Your task to perform on an android device: Open calendar and show me the third week of next month Image 0: 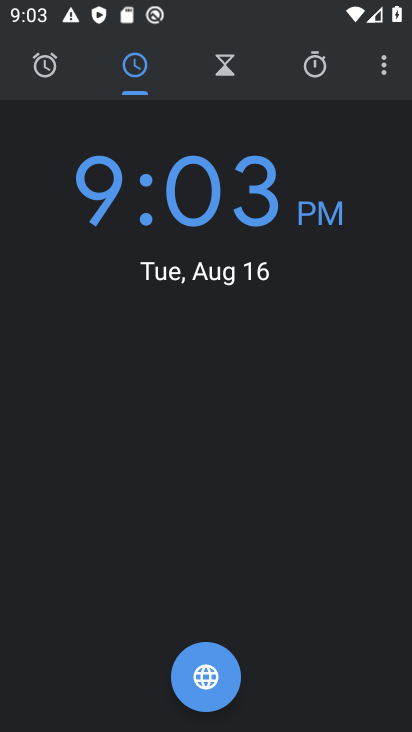
Step 0: press home button
Your task to perform on an android device: Open calendar and show me the third week of next month Image 1: 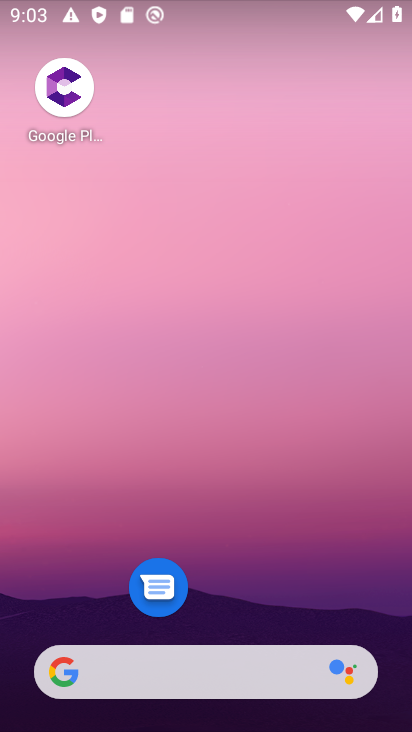
Step 1: drag from (234, 619) to (312, 6)
Your task to perform on an android device: Open calendar and show me the third week of next month Image 2: 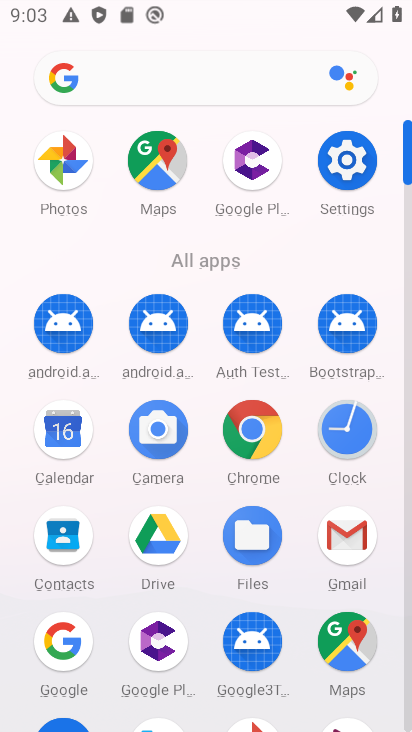
Step 2: click (56, 445)
Your task to perform on an android device: Open calendar and show me the third week of next month Image 3: 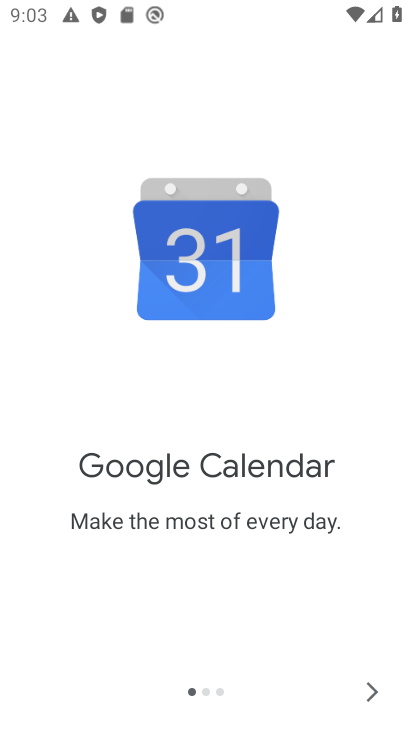
Step 3: click (366, 685)
Your task to perform on an android device: Open calendar and show me the third week of next month Image 4: 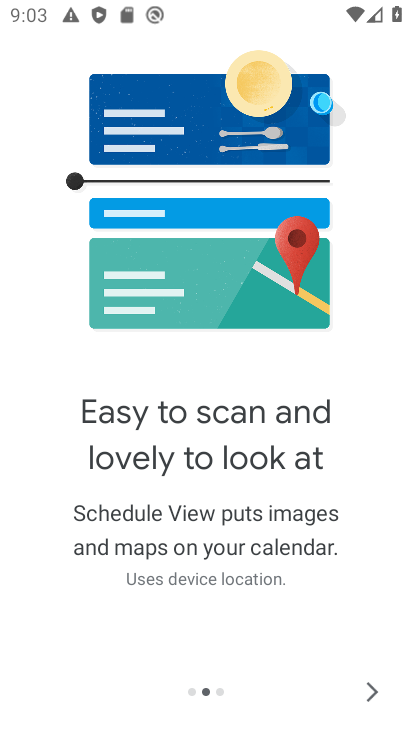
Step 4: click (366, 685)
Your task to perform on an android device: Open calendar and show me the third week of next month Image 5: 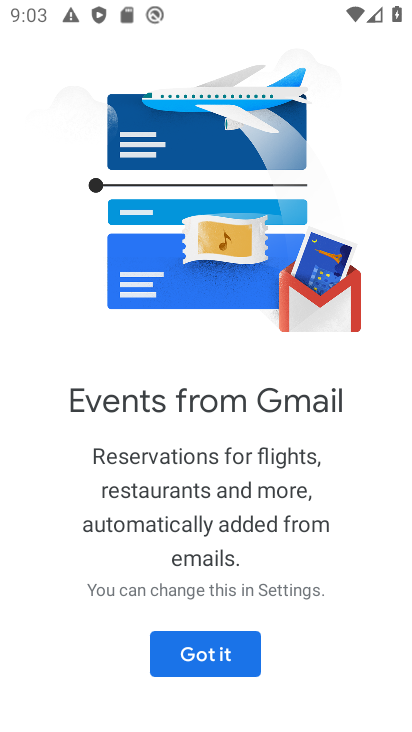
Step 5: click (220, 656)
Your task to perform on an android device: Open calendar and show me the third week of next month Image 6: 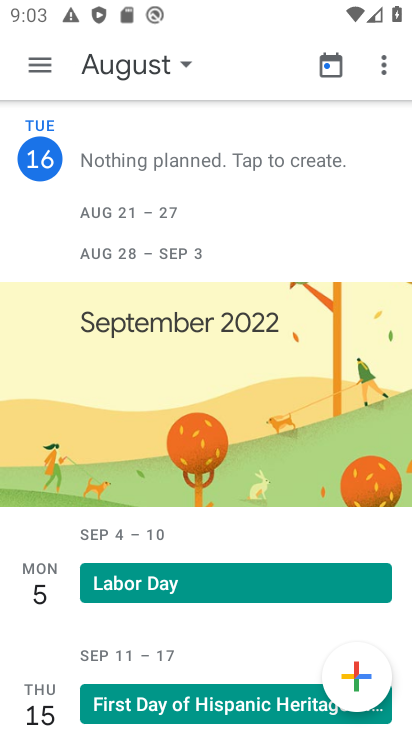
Step 6: click (31, 63)
Your task to perform on an android device: Open calendar and show me the third week of next month Image 7: 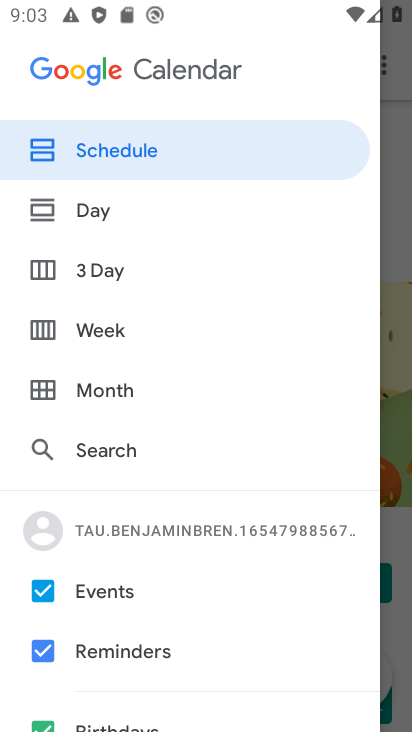
Step 7: click (132, 330)
Your task to perform on an android device: Open calendar and show me the third week of next month Image 8: 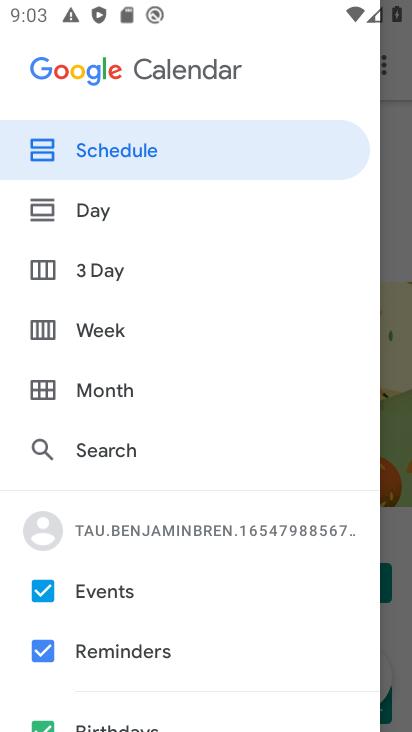
Step 8: click (75, 323)
Your task to perform on an android device: Open calendar and show me the third week of next month Image 9: 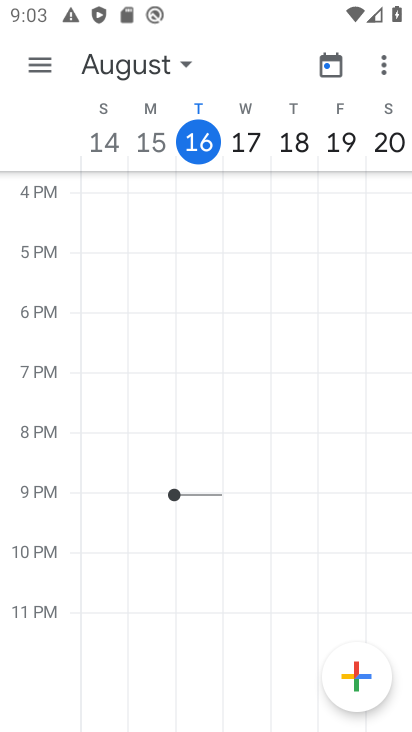
Step 9: task complete